Your task to perform on an android device: Open Wikipedia Image 0: 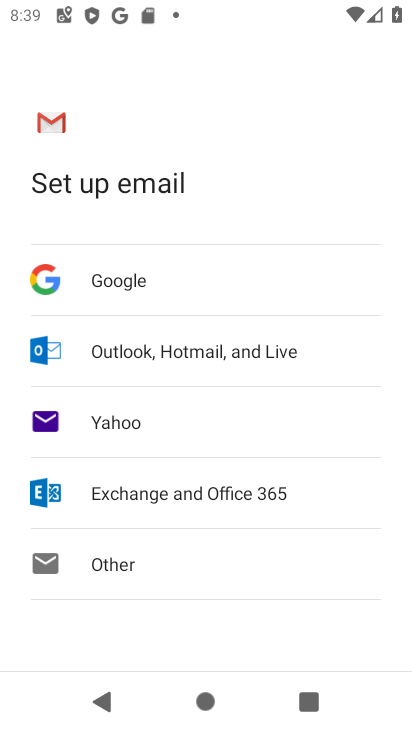
Step 0: press home button
Your task to perform on an android device: Open Wikipedia Image 1: 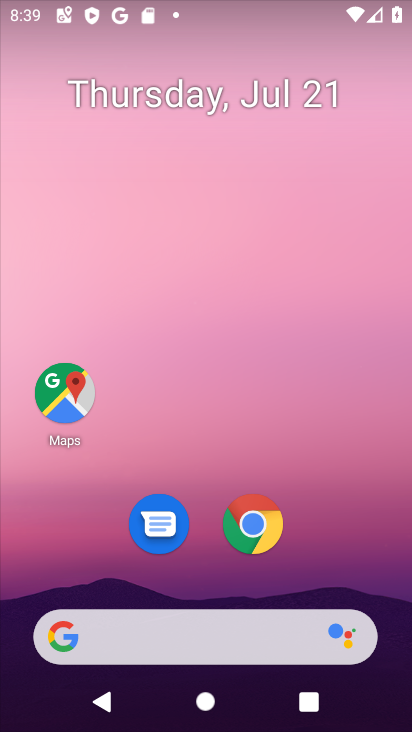
Step 1: click (261, 526)
Your task to perform on an android device: Open Wikipedia Image 2: 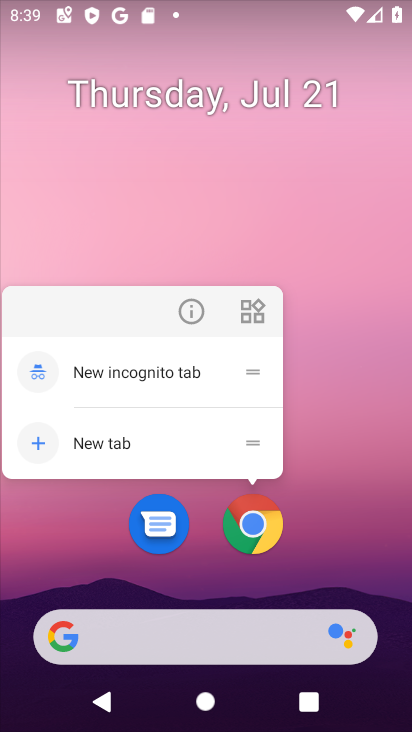
Step 2: click (253, 527)
Your task to perform on an android device: Open Wikipedia Image 3: 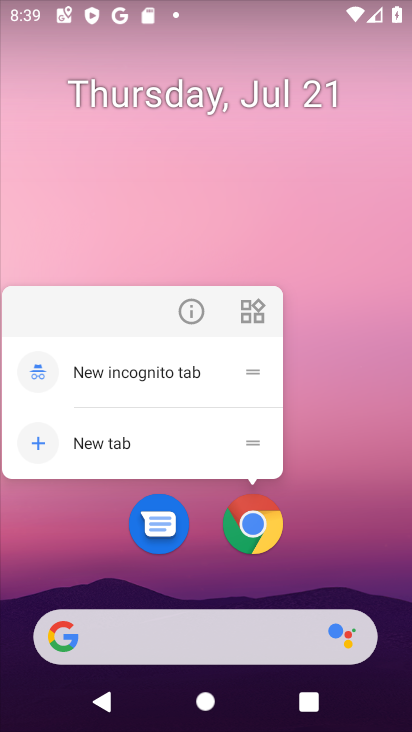
Step 3: click (251, 523)
Your task to perform on an android device: Open Wikipedia Image 4: 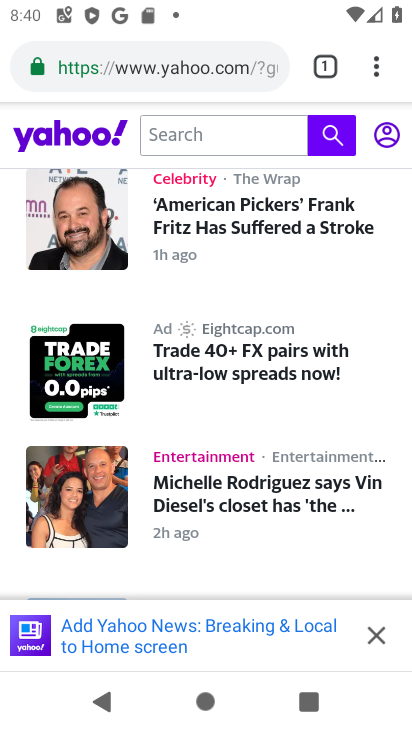
Step 4: drag from (377, 64) to (214, 129)
Your task to perform on an android device: Open Wikipedia Image 5: 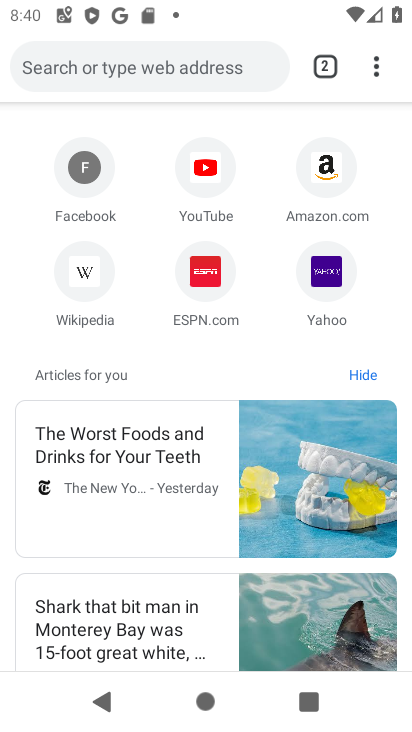
Step 5: click (93, 277)
Your task to perform on an android device: Open Wikipedia Image 6: 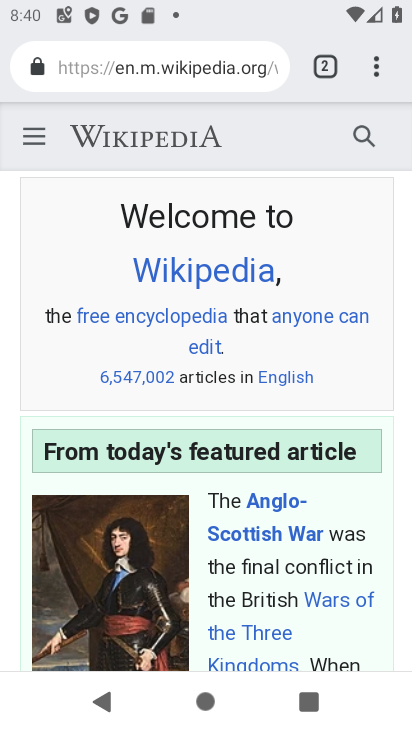
Step 6: task complete